Your task to perform on an android device: Search for usb-b on costco, select the first entry, add it to the cart, then select checkout. Image 0: 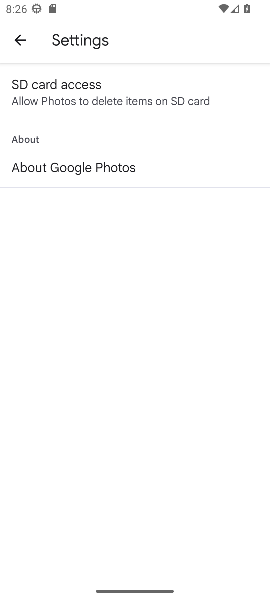
Step 0: press home button
Your task to perform on an android device: Search for usb-b on costco, select the first entry, add it to the cart, then select checkout. Image 1: 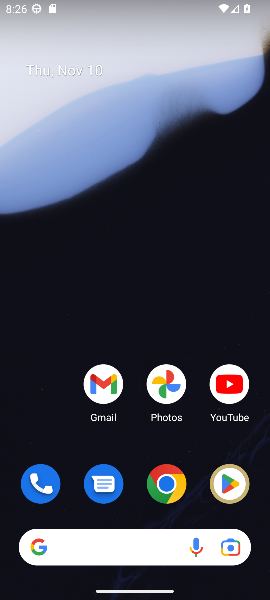
Step 1: click (166, 484)
Your task to perform on an android device: Search for usb-b on costco, select the first entry, add it to the cart, then select checkout. Image 2: 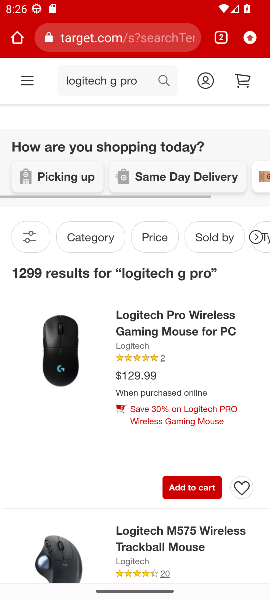
Step 2: click (115, 42)
Your task to perform on an android device: Search for usb-b on costco, select the first entry, add it to the cart, then select checkout. Image 3: 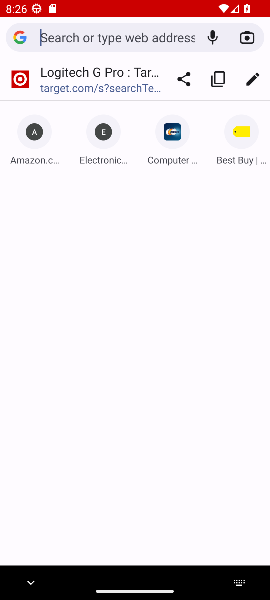
Step 3: type "costco.com"
Your task to perform on an android device: Search for usb-b on costco, select the first entry, add it to the cart, then select checkout. Image 4: 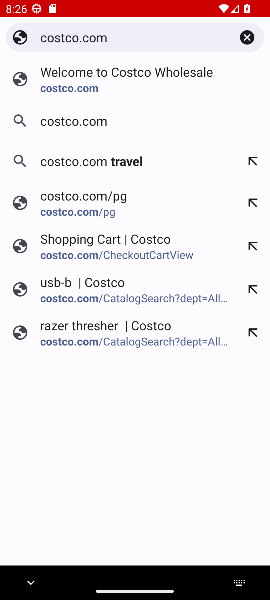
Step 4: click (62, 88)
Your task to perform on an android device: Search for usb-b on costco, select the first entry, add it to the cart, then select checkout. Image 5: 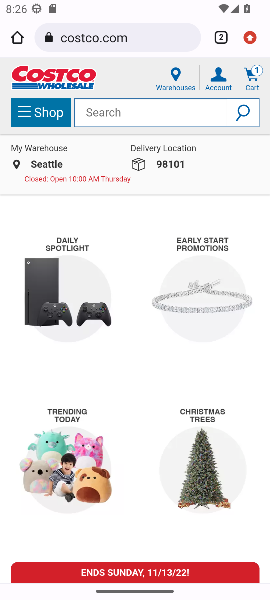
Step 5: click (89, 108)
Your task to perform on an android device: Search for usb-b on costco, select the first entry, add it to the cart, then select checkout. Image 6: 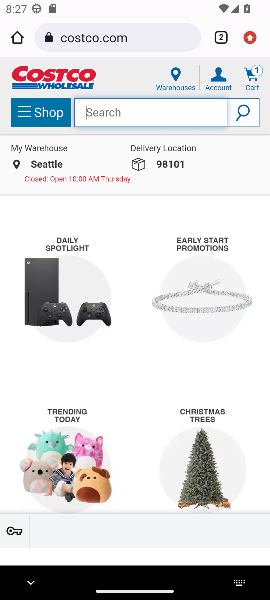
Step 6: type "usb-b "
Your task to perform on an android device: Search for usb-b on costco, select the first entry, add it to the cart, then select checkout. Image 7: 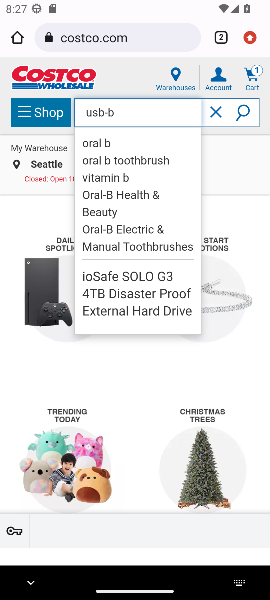
Step 7: click (238, 116)
Your task to perform on an android device: Search for usb-b on costco, select the first entry, add it to the cart, then select checkout. Image 8: 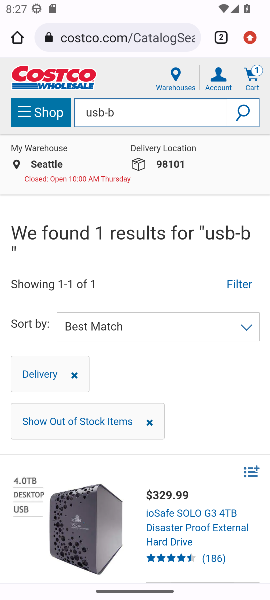
Step 8: task complete